Your task to perform on an android device: toggle airplane mode Image 0: 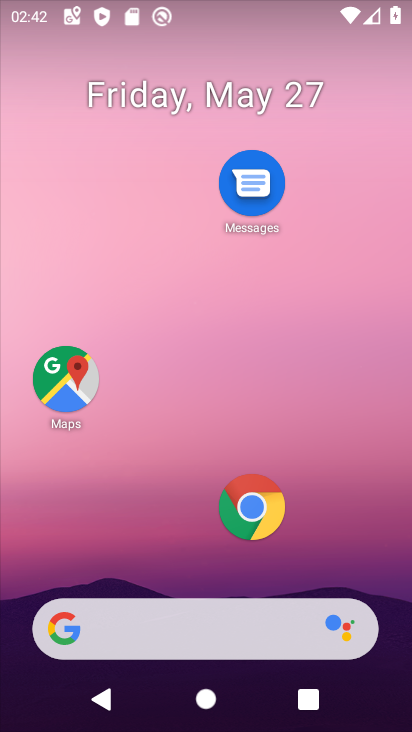
Step 0: drag from (201, 574) to (196, 71)
Your task to perform on an android device: toggle airplane mode Image 1: 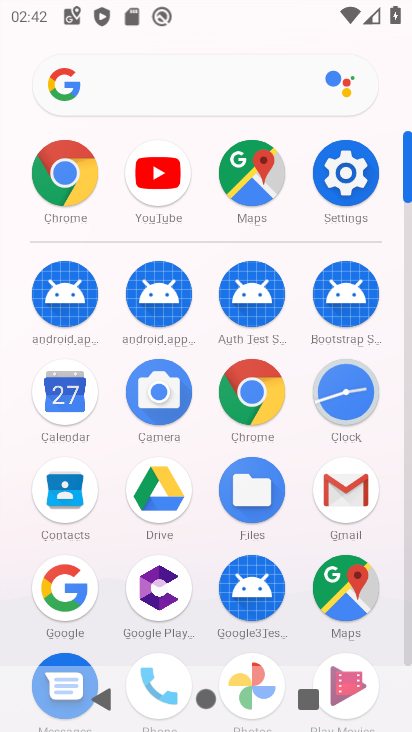
Step 1: click (351, 578)
Your task to perform on an android device: toggle airplane mode Image 2: 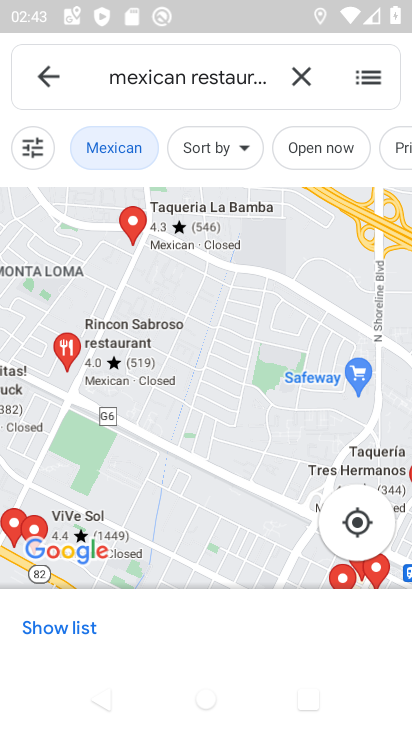
Step 2: drag from (211, 557) to (204, 223)
Your task to perform on an android device: toggle airplane mode Image 3: 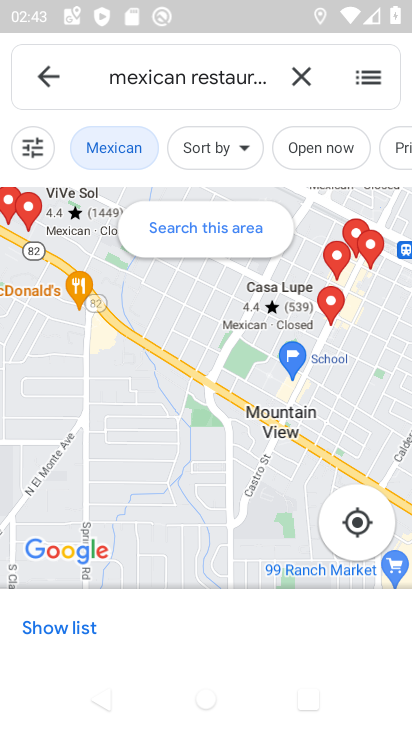
Step 3: drag from (211, 608) to (326, 169)
Your task to perform on an android device: toggle airplane mode Image 4: 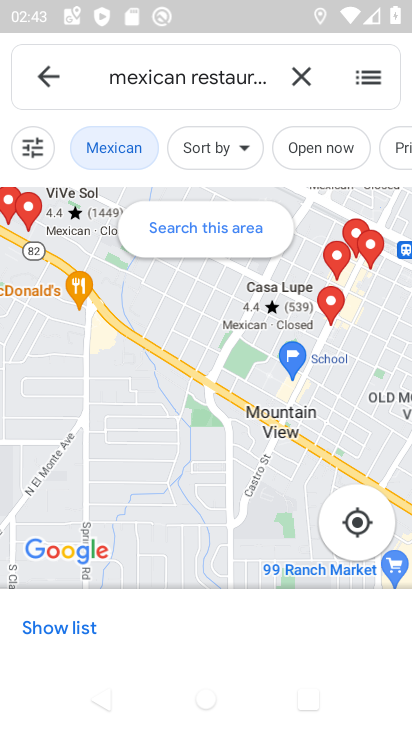
Step 4: drag from (239, 571) to (245, 333)
Your task to perform on an android device: toggle airplane mode Image 5: 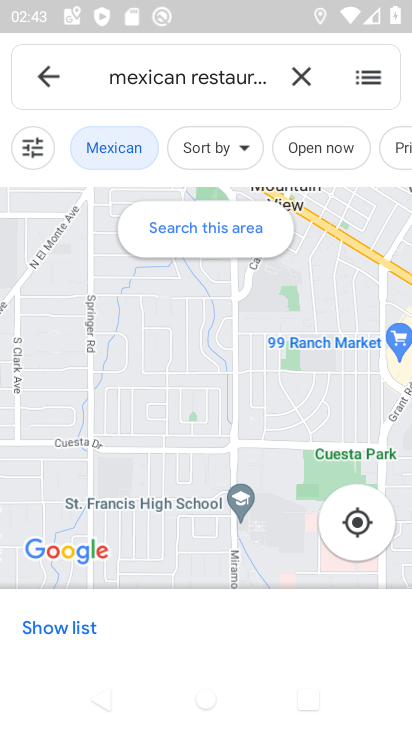
Step 5: press home button
Your task to perform on an android device: toggle airplane mode Image 6: 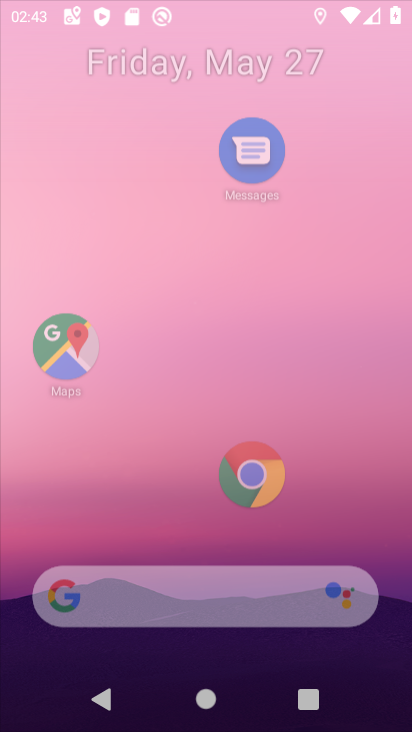
Step 6: drag from (106, 575) to (158, 23)
Your task to perform on an android device: toggle airplane mode Image 7: 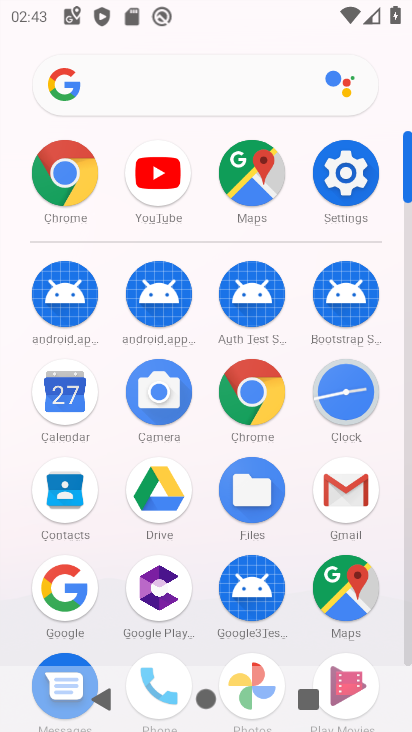
Step 7: drag from (208, 647) to (187, 193)
Your task to perform on an android device: toggle airplane mode Image 8: 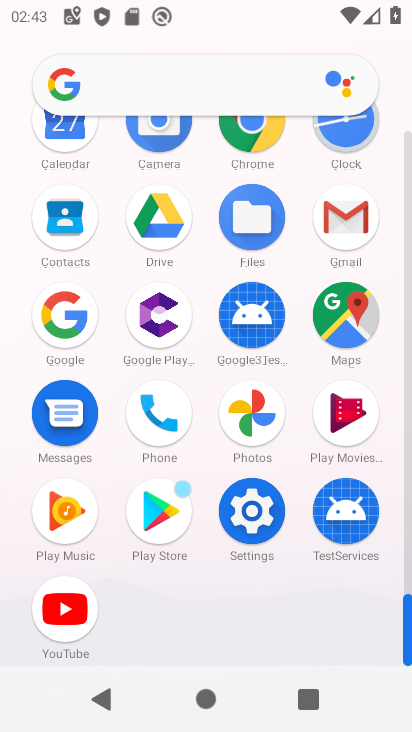
Step 8: click (243, 504)
Your task to perform on an android device: toggle airplane mode Image 9: 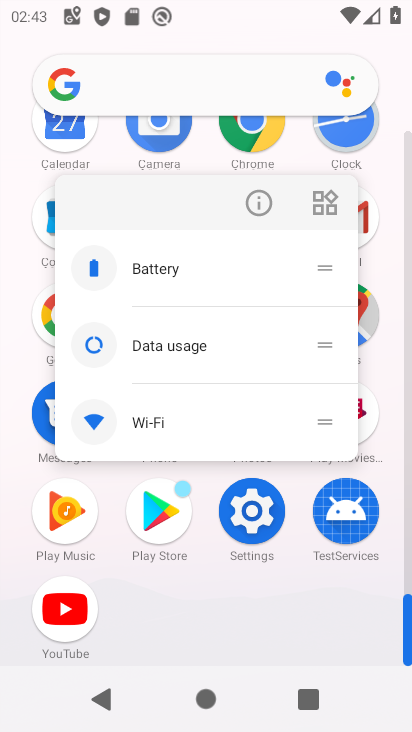
Step 9: click (248, 204)
Your task to perform on an android device: toggle airplane mode Image 10: 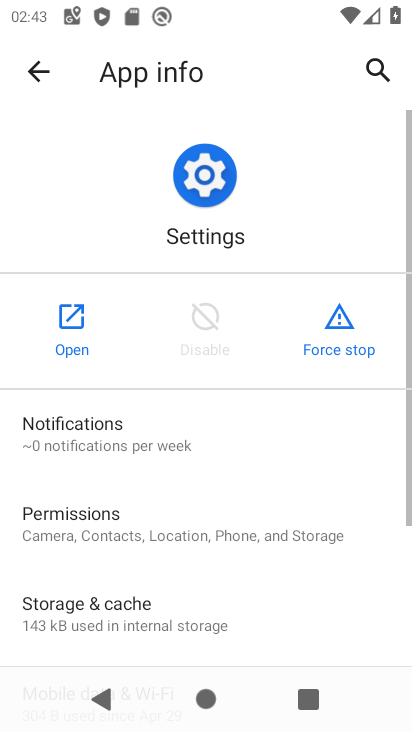
Step 10: click (74, 329)
Your task to perform on an android device: toggle airplane mode Image 11: 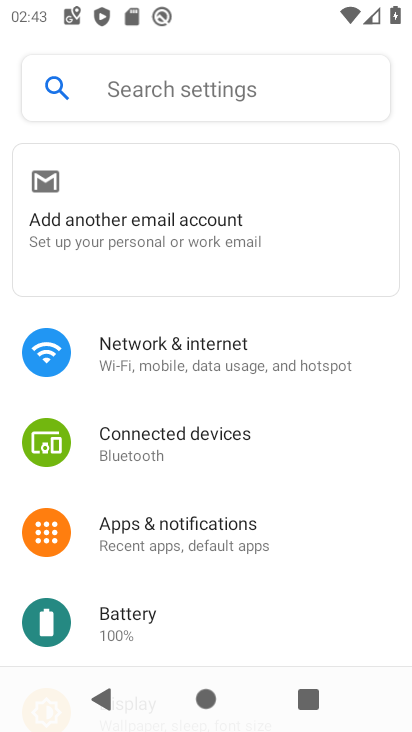
Step 11: click (194, 353)
Your task to perform on an android device: toggle airplane mode Image 12: 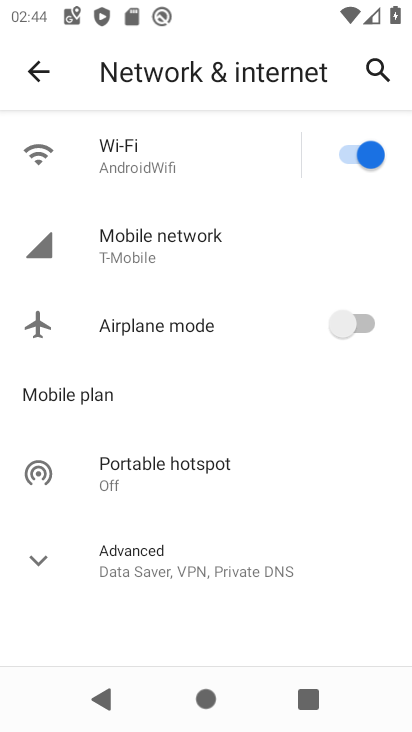
Step 12: click (200, 327)
Your task to perform on an android device: toggle airplane mode Image 13: 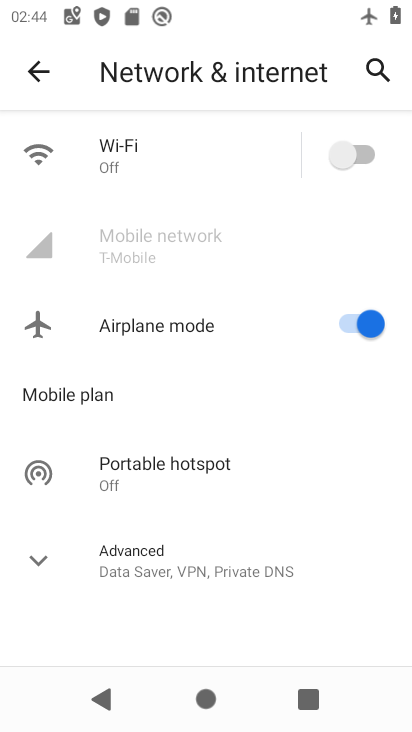
Step 13: task complete